Your task to perform on an android device: Do I have any events today? Image 0: 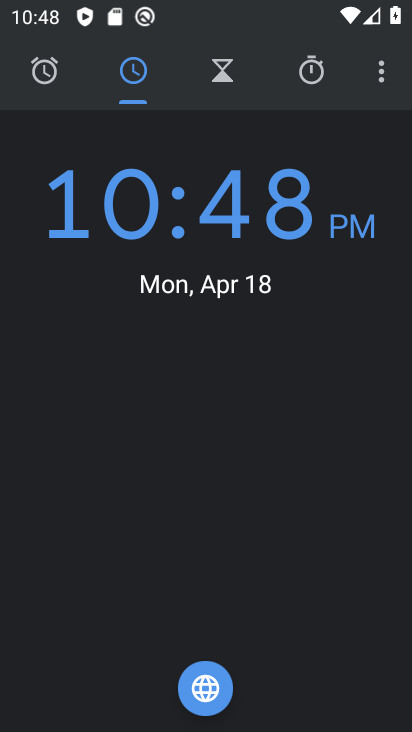
Step 0: press home button
Your task to perform on an android device: Do I have any events today? Image 1: 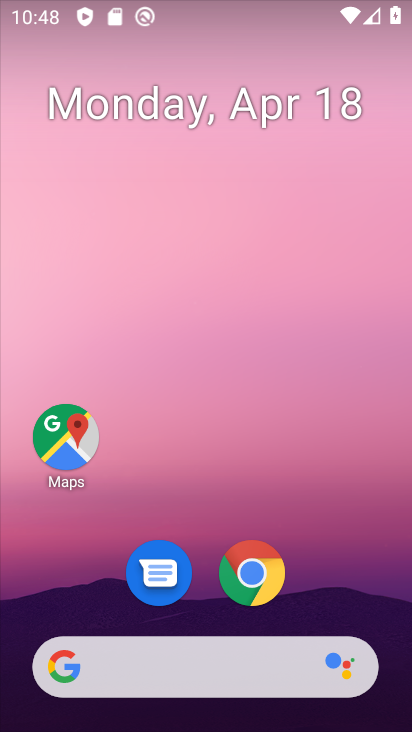
Step 1: drag from (352, 579) to (391, 83)
Your task to perform on an android device: Do I have any events today? Image 2: 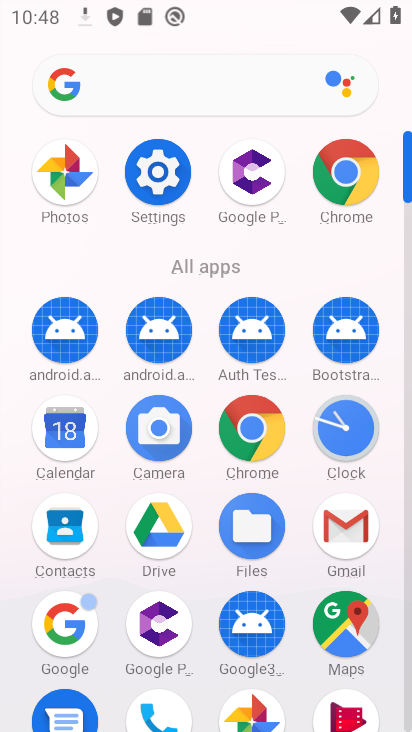
Step 2: click (61, 430)
Your task to perform on an android device: Do I have any events today? Image 3: 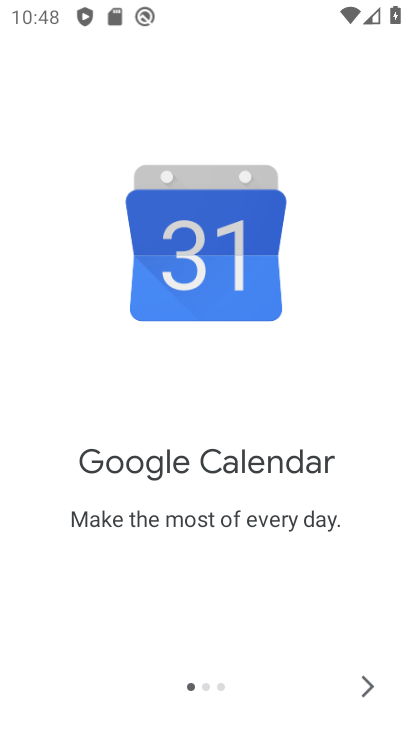
Step 3: click (369, 678)
Your task to perform on an android device: Do I have any events today? Image 4: 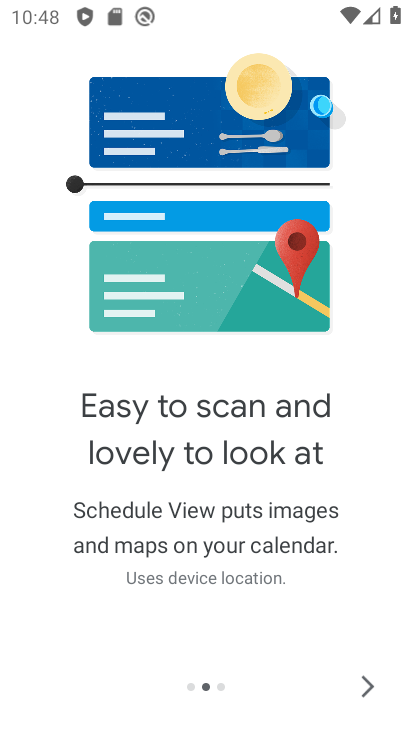
Step 4: click (369, 678)
Your task to perform on an android device: Do I have any events today? Image 5: 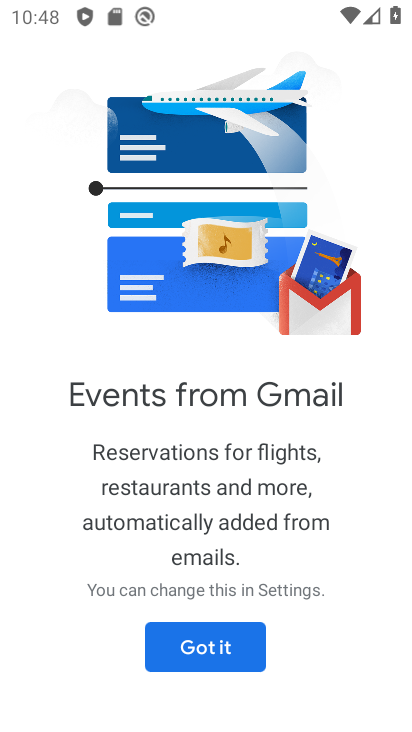
Step 5: click (250, 642)
Your task to perform on an android device: Do I have any events today? Image 6: 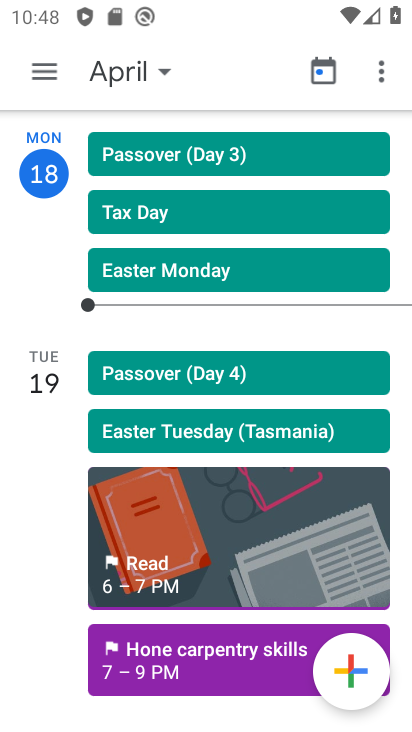
Step 6: click (157, 68)
Your task to perform on an android device: Do I have any events today? Image 7: 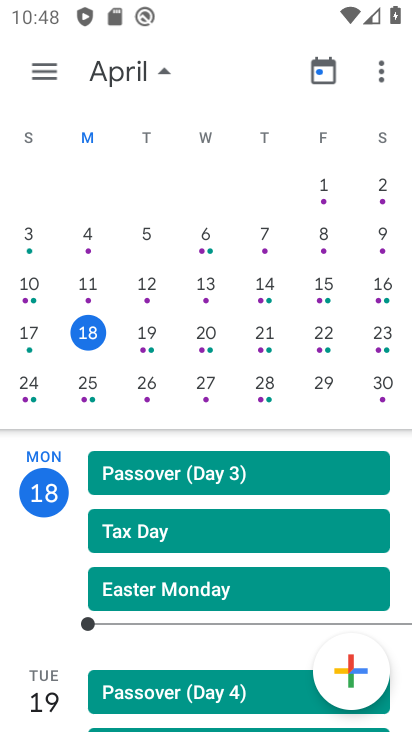
Step 7: click (150, 336)
Your task to perform on an android device: Do I have any events today? Image 8: 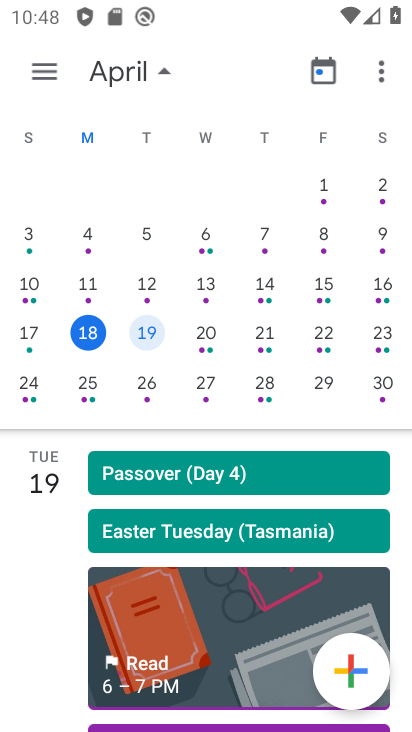
Step 8: task complete